Your task to perform on an android device: Show me productivity apps on the Play Store Image 0: 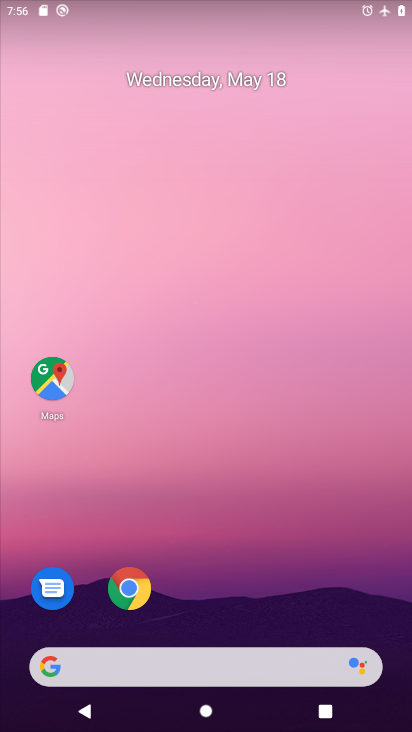
Step 0: drag from (205, 586) to (236, 294)
Your task to perform on an android device: Show me productivity apps on the Play Store Image 1: 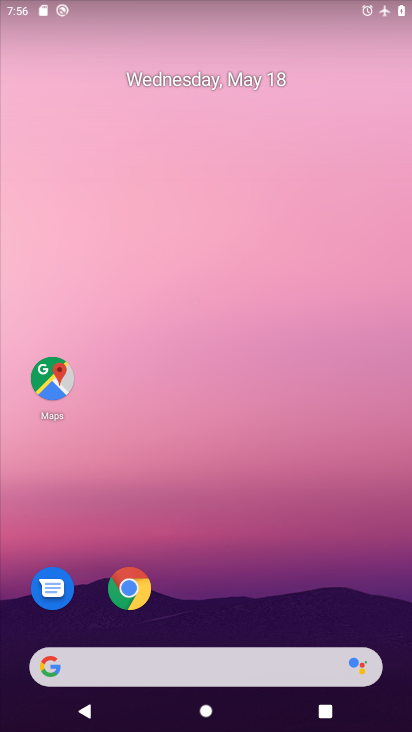
Step 1: drag from (227, 626) to (324, 166)
Your task to perform on an android device: Show me productivity apps on the Play Store Image 2: 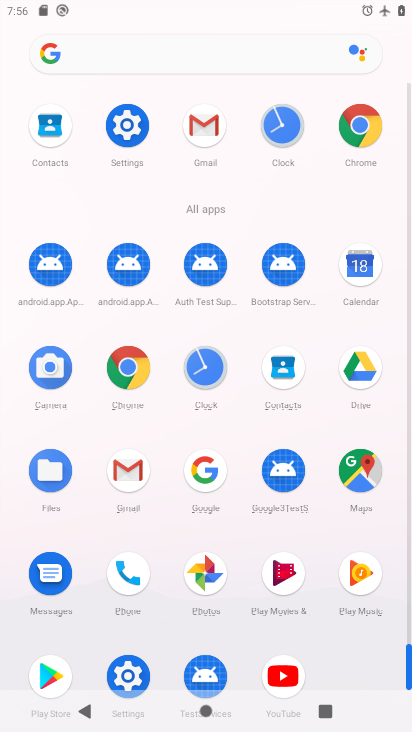
Step 2: click (48, 668)
Your task to perform on an android device: Show me productivity apps on the Play Store Image 3: 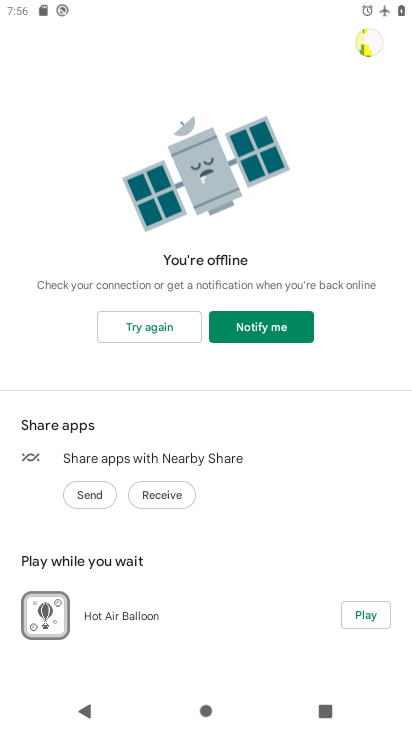
Step 3: click (168, 330)
Your task to perform on an android device: Show me productivity apps on the Play Store Image 4: 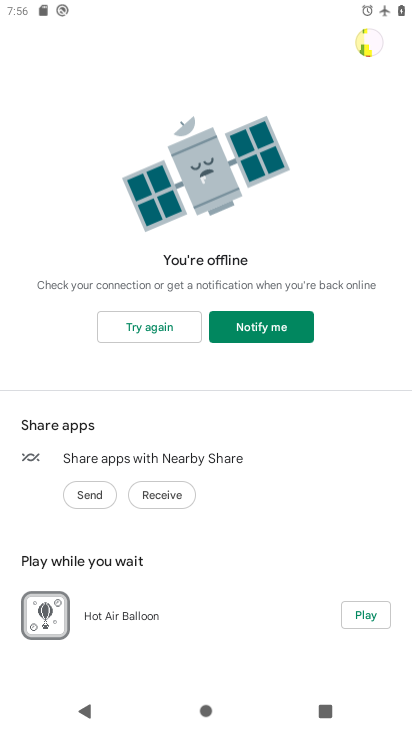
Step 4: click (168, 330)
Your task to perform on an android device: Show me productivity apps on the Play Store Image 5: 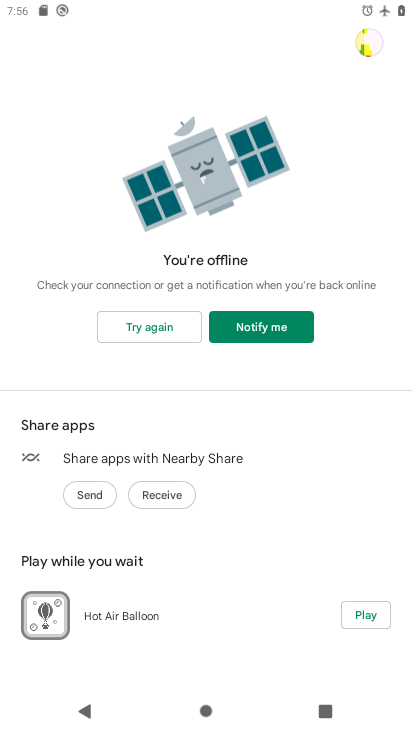
Step 5: drag from (290, 3) to (235, 433)
Your task to perform on an android device: Show me productivity apps on the Play Store Image 6: 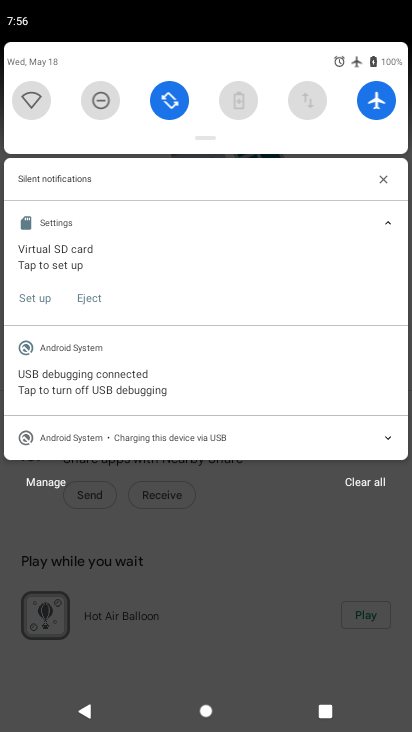
Step 6: click (361, 105)
Your task to perform on an android device: Show me productivity apps on the Play Store Image 7: 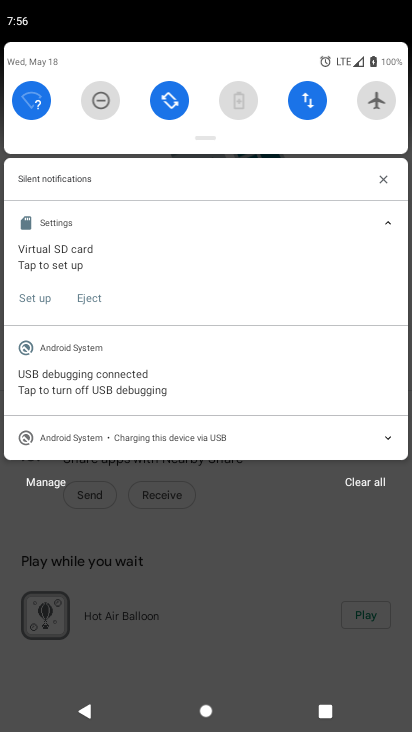
Step 7: drag from (220, 520) to (281, 154)
Your task to perform on an android device: Show me productivity apps on the Play Store Image 8: 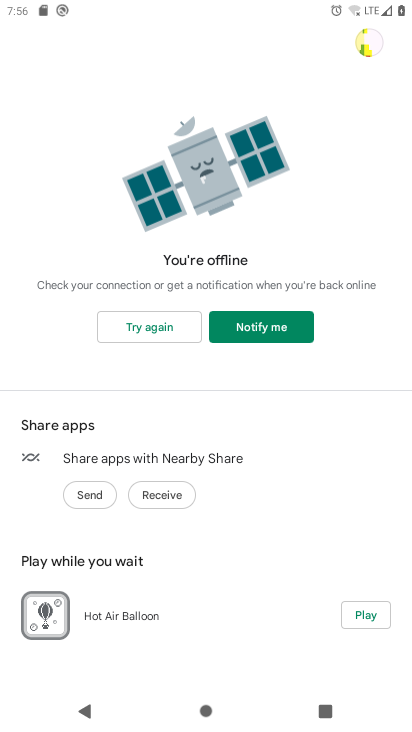
Step 8: click (144, 321)
Your task to perform on an android device: Show me productivity apps on the Play Store Image 9: 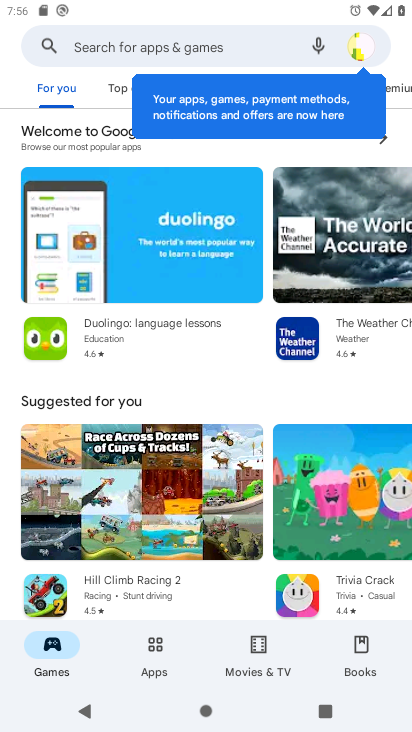
Step 9: click (152, 647)
Your task to perform on an android device: Show me productivity apps on the Play Store Image 10: 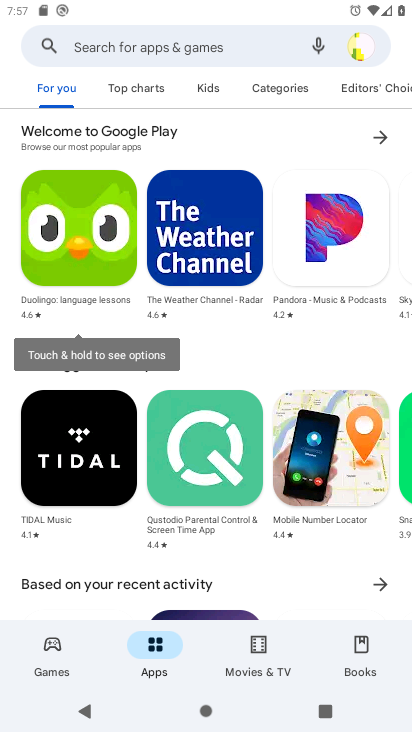
Step 10: click (295, 83)
Your task to perform on an android device: Show me productivity apps on the Play Store Image 11: 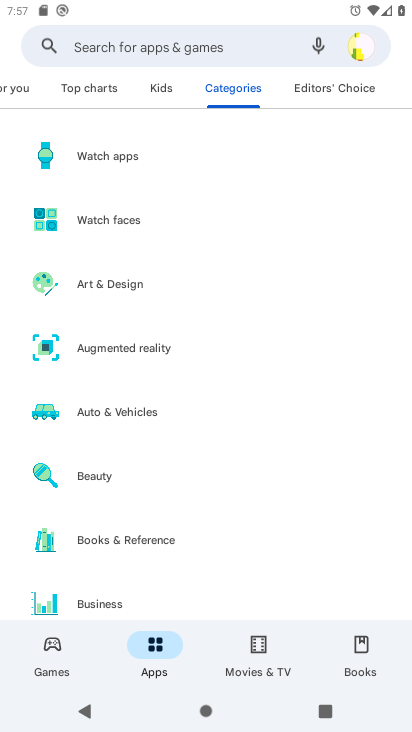
Step 11: drag from (106, 560) to (199, 224)
Your task to perform on an android device: Show me productivity apps on the Play Store Image 12: 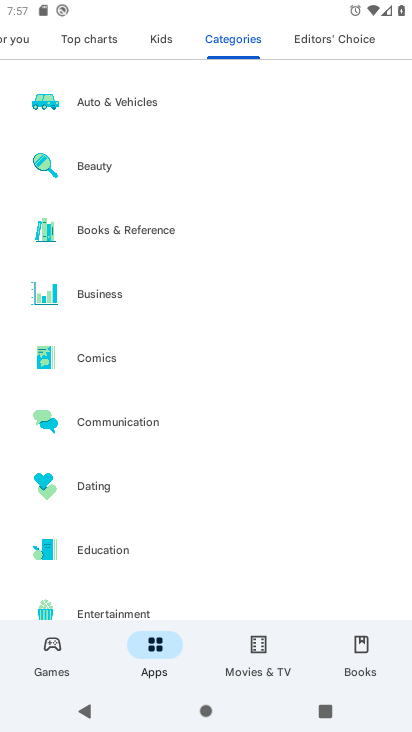
Step 12: drag from (154, 562) to (219, 264)
Your task to perform on an android device: Show me productivity apps on the Play Store Image 13: 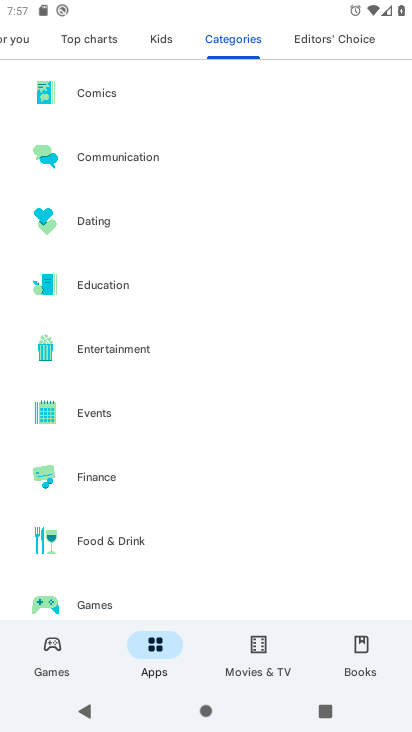
Step 13: drag from (191, 522) to (269, 141)
Your task to perform on an android device: Show me productivity apps on the Play Store Image 14: 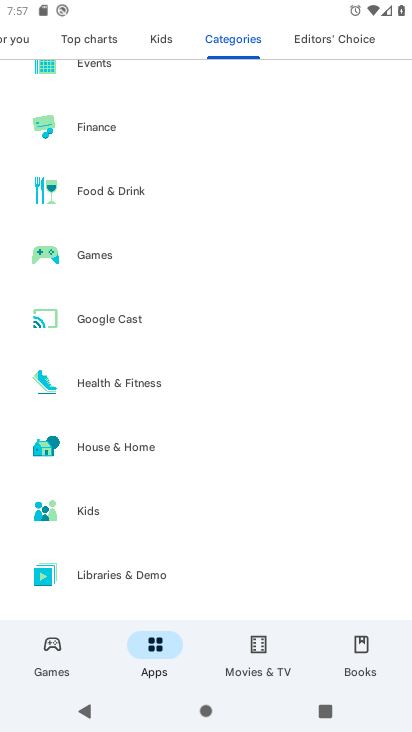
Step 14: drag from (151, 562) to (189, 232)
Your task to perform on an android device: Show me productivity apps on the Play Store Image 15: 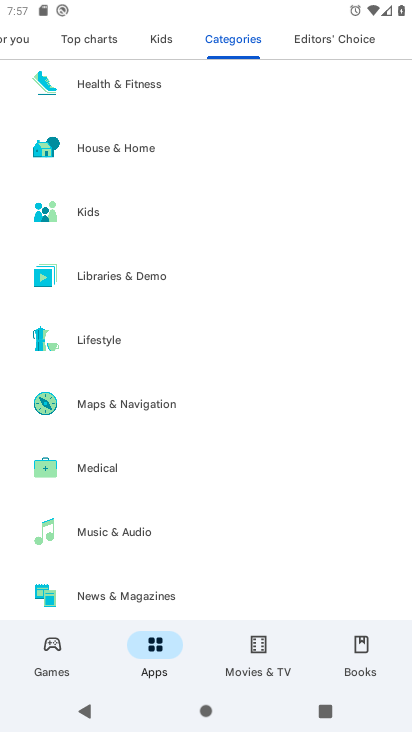
Step 15: drag from (115, 511) to (175, 234)
Your task to perform on an android device: Show me productivity apps on the Play Store Image 16: 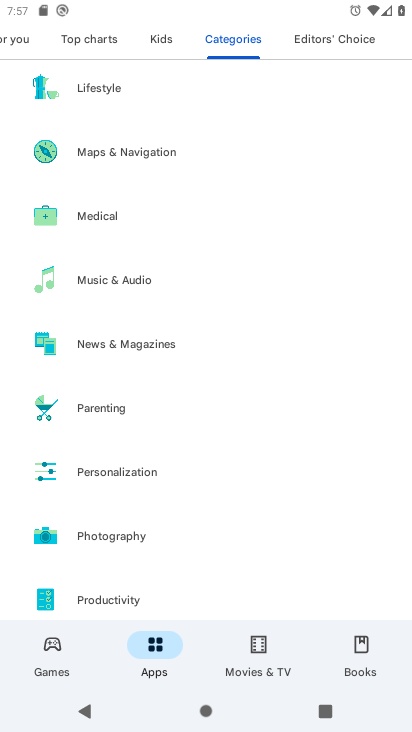
Step 16: click (108, 594)
Your task to perform on an android device: Show me productivity apps on the Play Store Image 17: 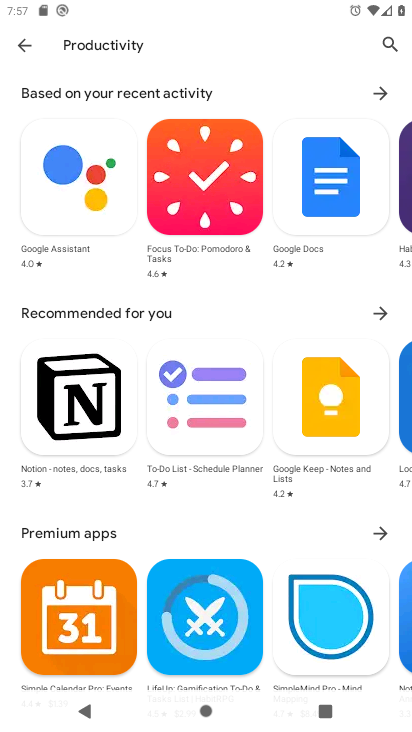
Step 17: task complete